Your task to perform on an android device: What's on my calendar tomorrow? Image 0: 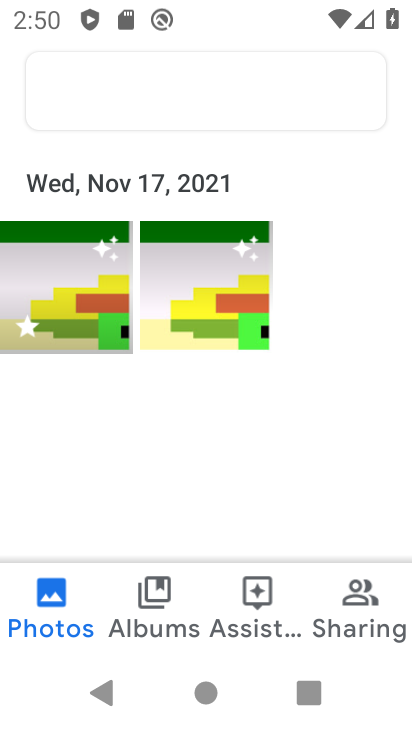
Step 0: press home button
Your task to perform on an android device: What's on my calendar tomorrow? Image 1: 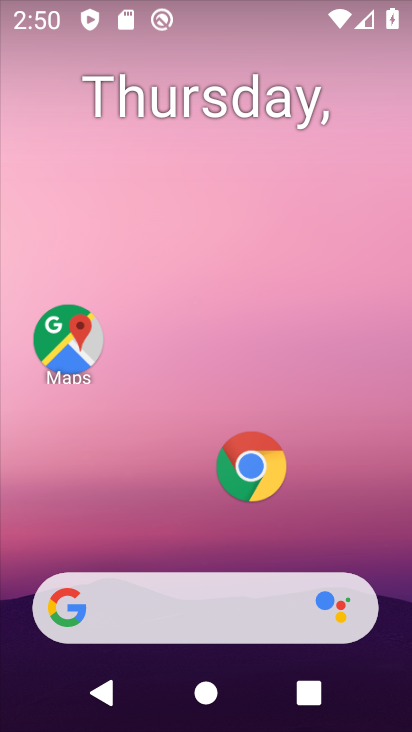
Step 1: drag from (186, 557) to (186, 175)
Your task to perform on an android device: What's on my calendar tomorrow? Image 2: 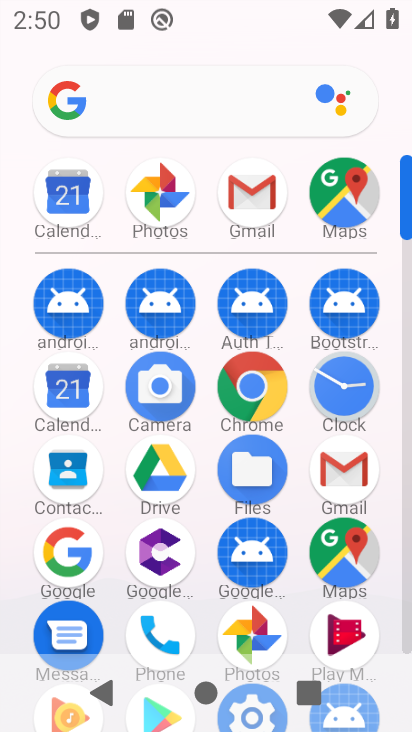
Step 2: click (90, 412)
Your task to perform on an android device: What's on my calendar tomorrow? Image 3: 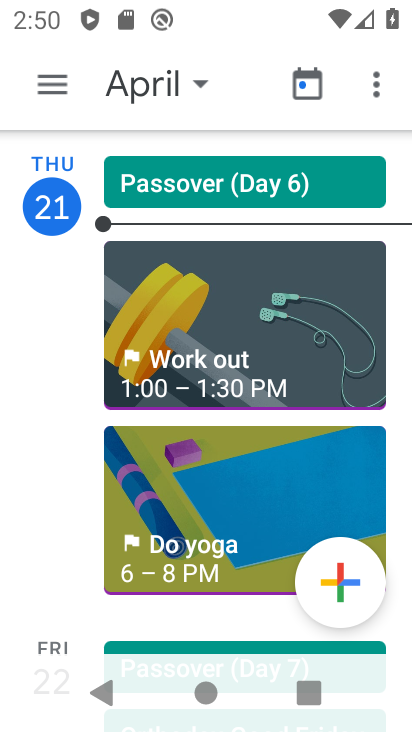
Step 3: click (175, 85)
Your task to perform on an android device: What's on my calendar tomorrow? Image 4: 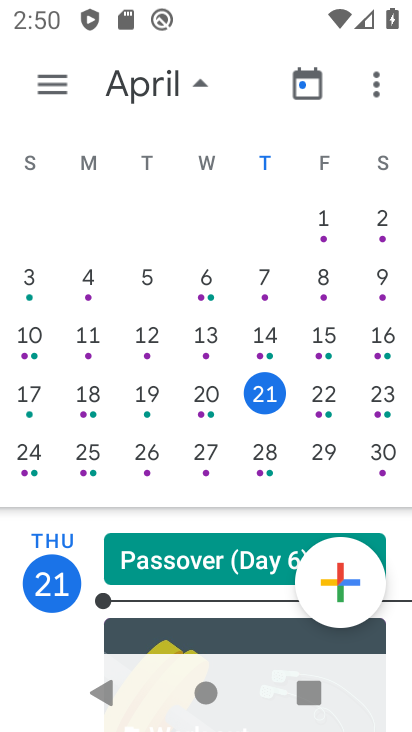
Step 4: click (310, 391)
Your task to perform on an android device: What's on my calendar tomorrow? Image 5: 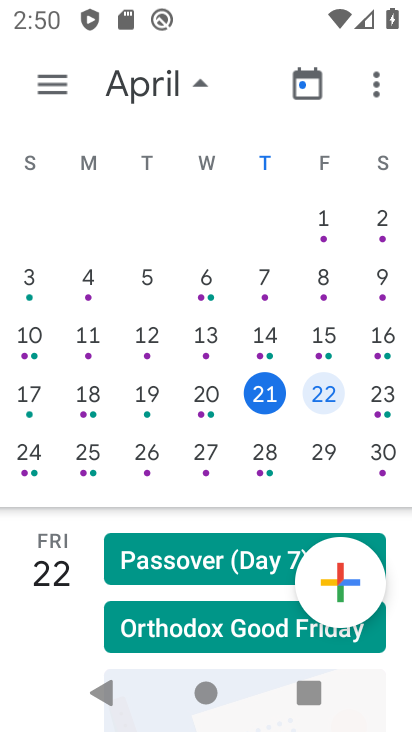
Step 5: drag from (157, 510) to (204, 240)
Your task to perform on an android device: What's on my calendar tomorrow? Image 6: 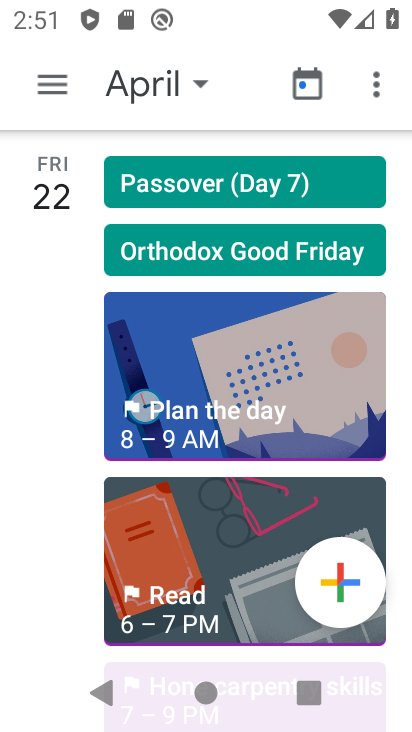
Step 6: click (183, 83)
Your task to perform on an android device: What's on my calendar tomorrow? Image 7: 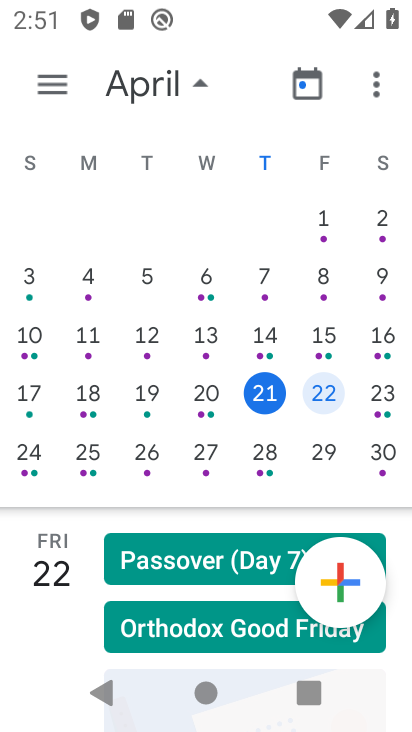
Step 7: task complete